Your task to perform on an android device: turn off improve location accuracy Image 0: 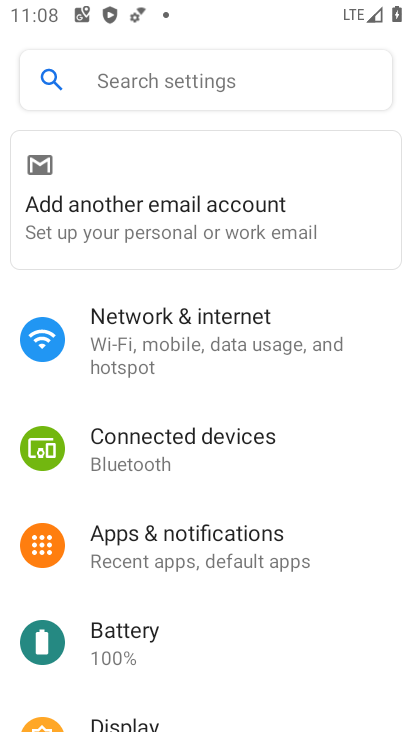
Step 0: drag from (98, 601) to (172, 94)
Your task to perform on an android device: turn off improve location accuracy Image 1: 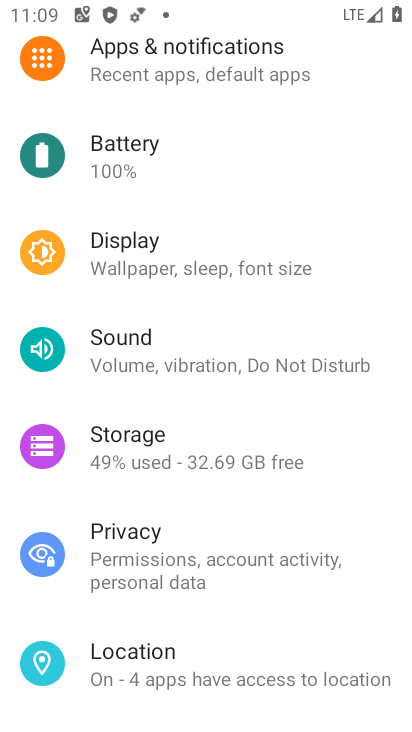
Step 1: click (202, 663)
Your task to perform on an android device: turn off improve location accuracy Image 2: 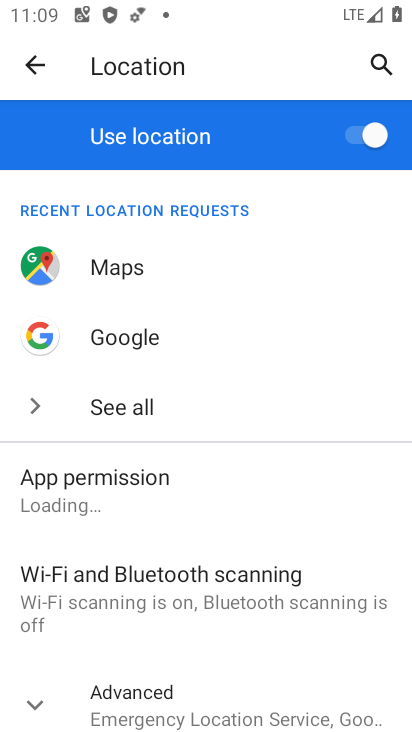
Step 2: click (185, 693)
Your task to perform on an android device: turn off improve location accuracy Image 3: 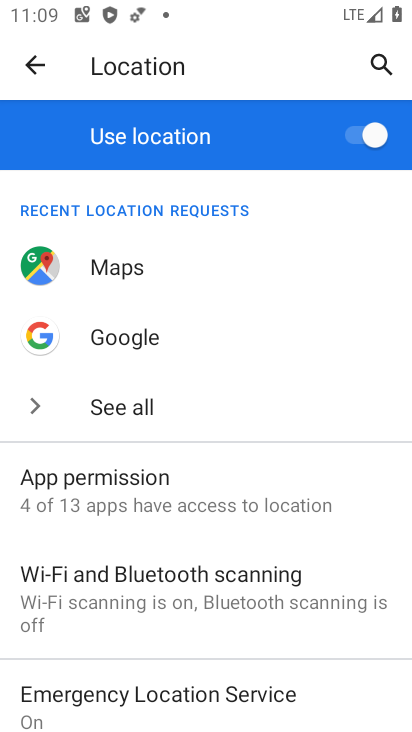
Step 3: drag from (265, 481) to (315, 134)
Your task to perform on an android device: turn off improve location accuracy Image 4: 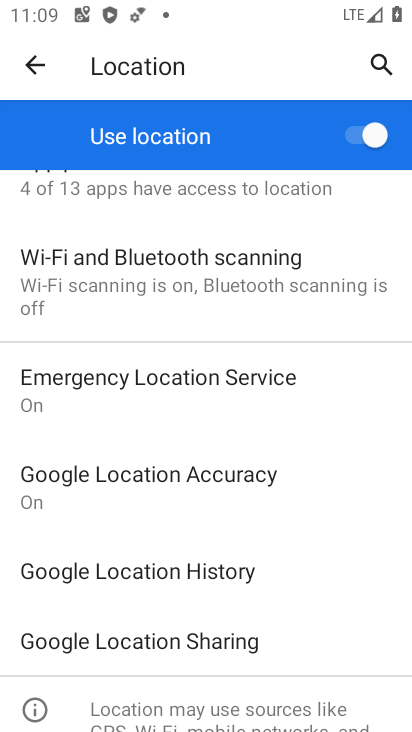
Step 4: click (214, 481)
Your task to perform on an android device: turn off improve location accuracy Image 5: 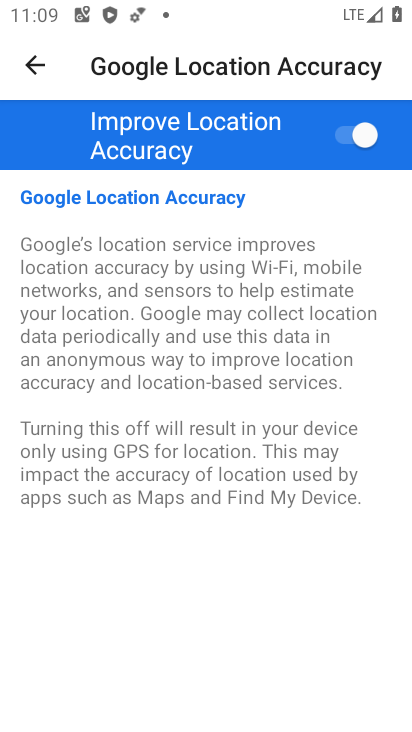
Step 5: click (354, 126)
Your task to perform on an android device: turn off improve location accuracy Image 6: 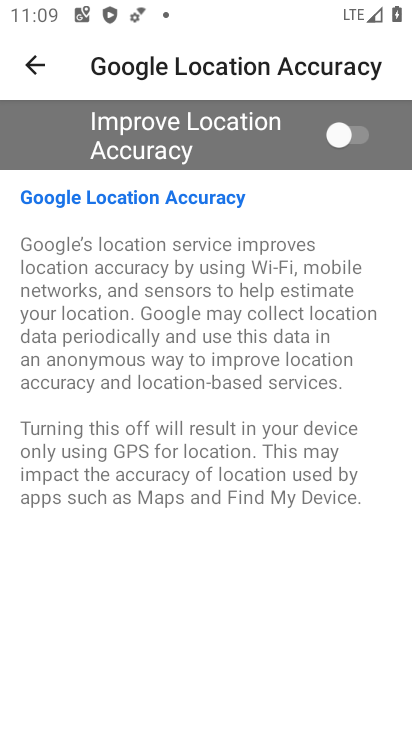
Step 6: task complete